Your task to perform on an android device: turn off notifications in google photos Image 0: 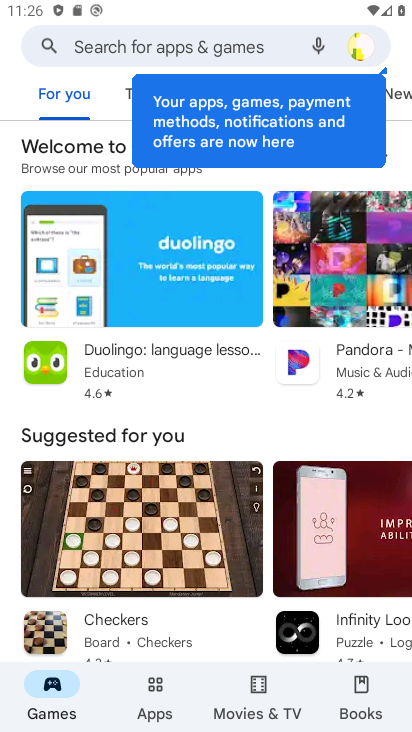
Step 0: press back button
Your task to perform on an android device: turn off notifications in google photos Image 1: 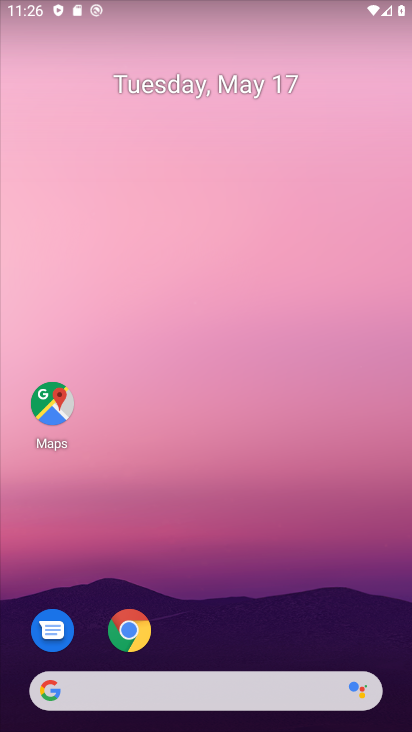
Step 1: drag from (214, 616) to (305, 59)
Your task to perform on an android device: turn off notifications in google photos Image 2: 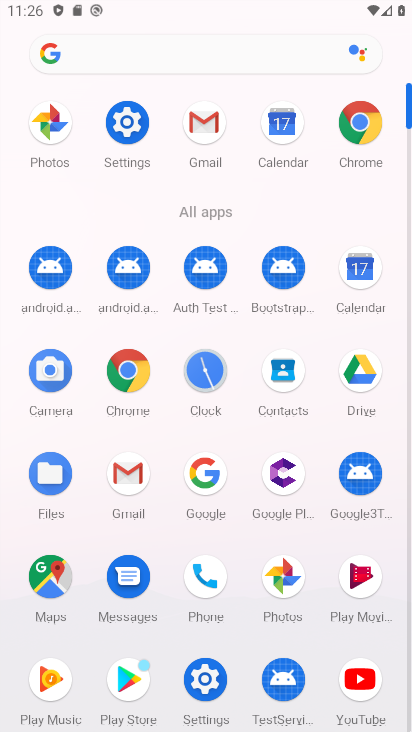
Step 2: click (280, 580)
Your task to perform on an android device: turn off notifications in google photos Image 3: 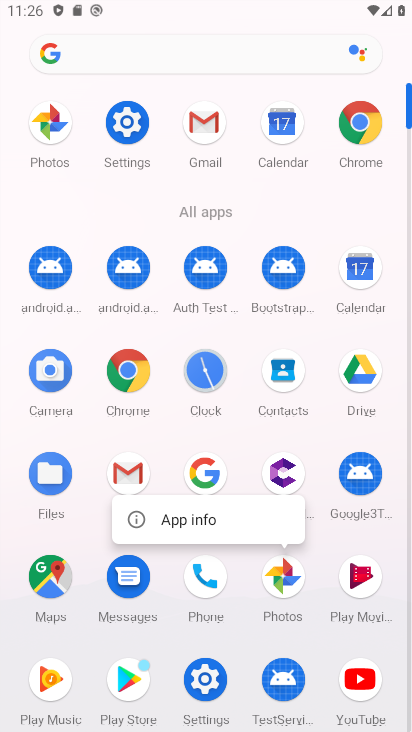
Step 3: click (285, 567)
Your task to perform on an android device: turn off notifications in google photos Image 4: 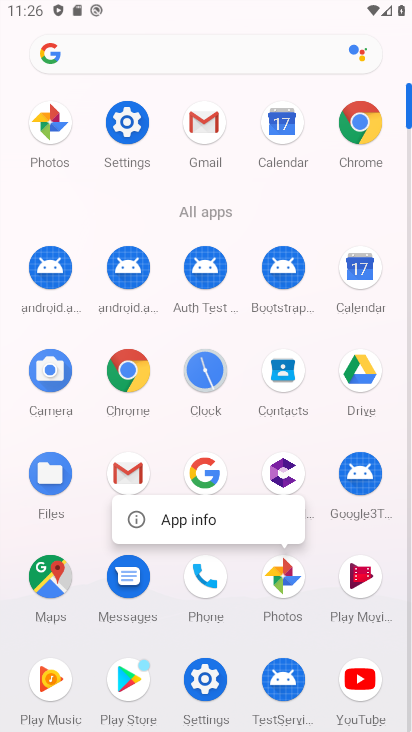
Step 4: click (173, 522)
Your task to perform on an android device: turn off notifications in google photos Image 5: 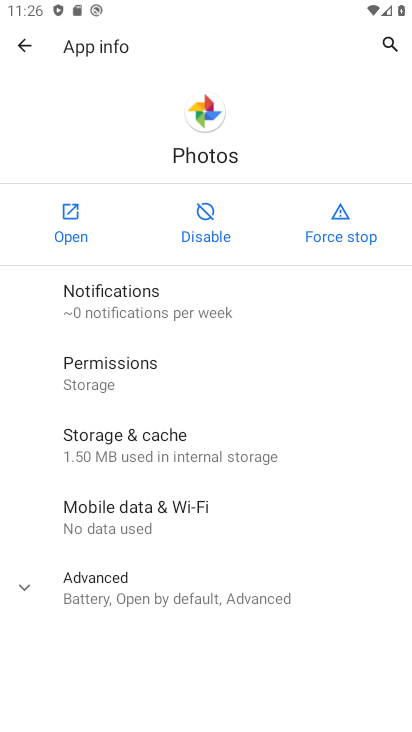
Step 5: click (108, 294)
Your task to perform on an android device: turn off notifications in google photos Image 6: 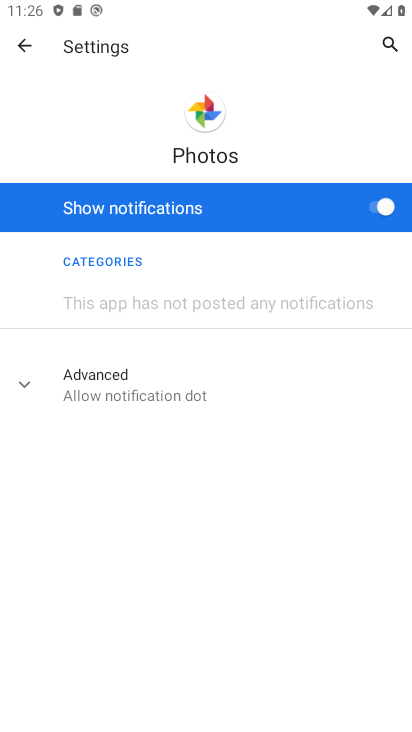
Step 6: click (380, 203)
Your task to perform on an android device: turn off notifications in google photos Image 7: 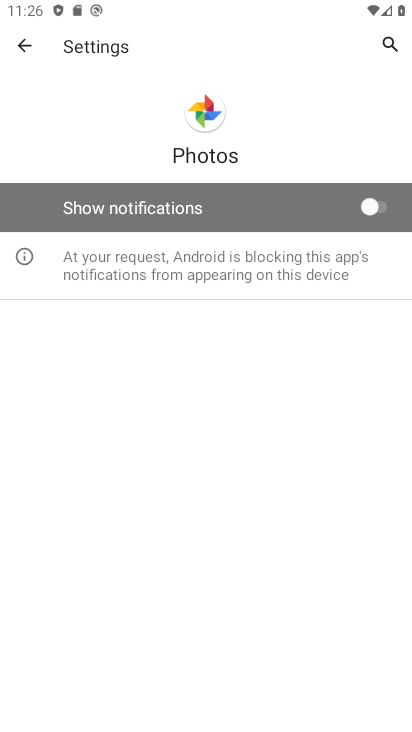
Step 7: task complete